Your task to perform on an android device: Is it going to rain today? Image 0: 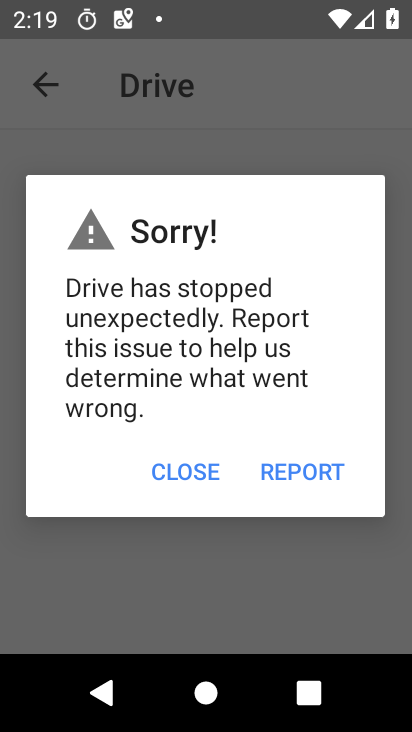
Step 0: press home button
Your task to perform on an android device: Is it going to rain today? Image 1: 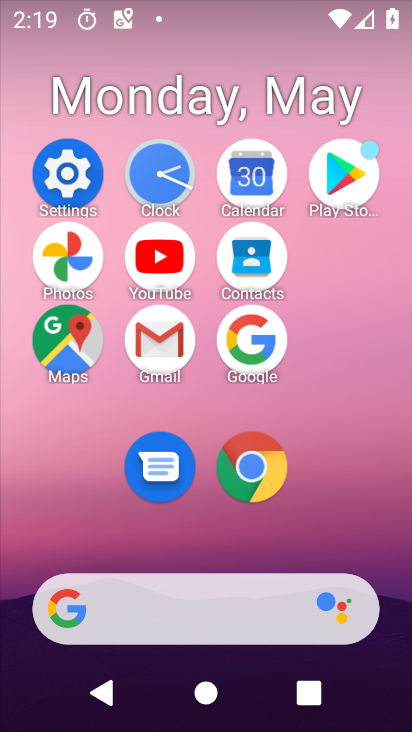
Step 1: click (254, 337)
Your task to perform on an android device: Is it going to rain today? Image 2: 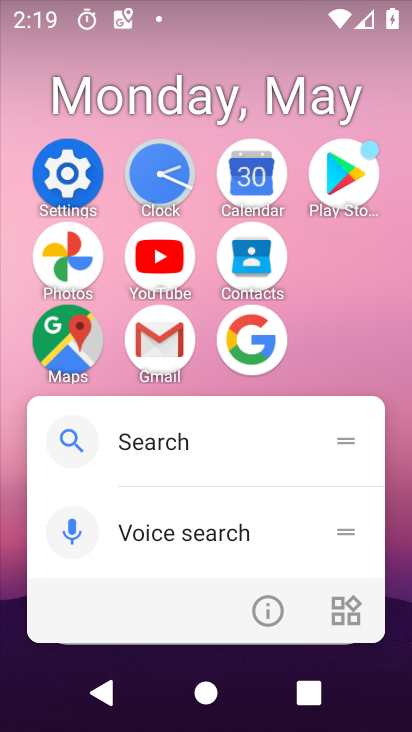
Step 2: click (253, 336)
Your task to perform on an android device: Is it going to rain today? Image 3: 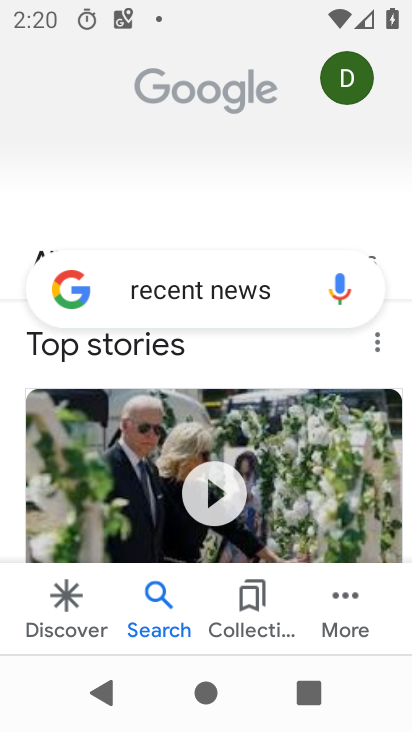
Step 3: click (291, 285)
Your task to perform on an android device: Is it going to rain today? Image 4: 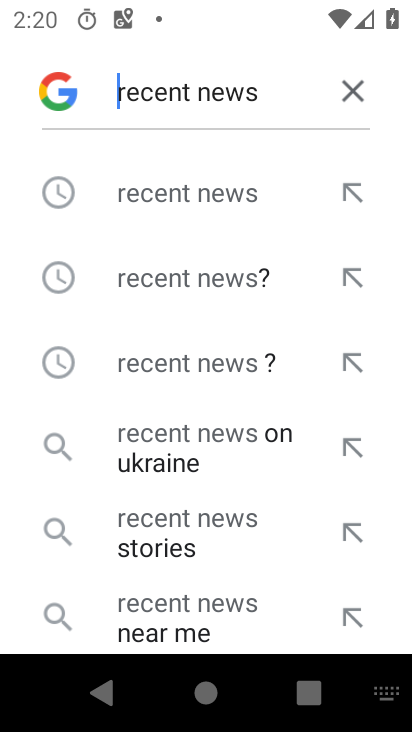
Step 4: click (372, 101)
Your task to perform on an android device: Is it going to rain today? Image 5: 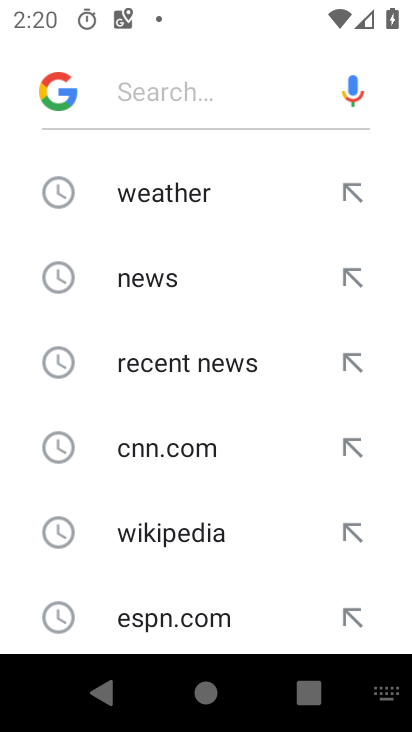
Step 5: drag from (212, 513) to (243, 234)
Your task to perform on an android device: Is it going to rain today? Image 6: 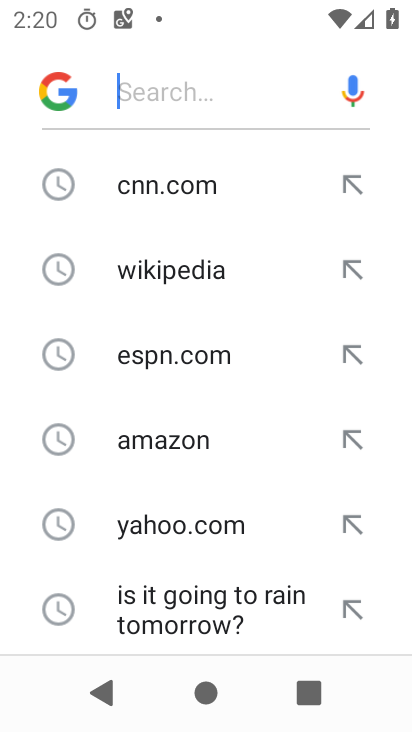
Step 6: drag from (232, 518) to (269, 197)
Your task to perform on an android device: Is it going to rain today? Image 7: 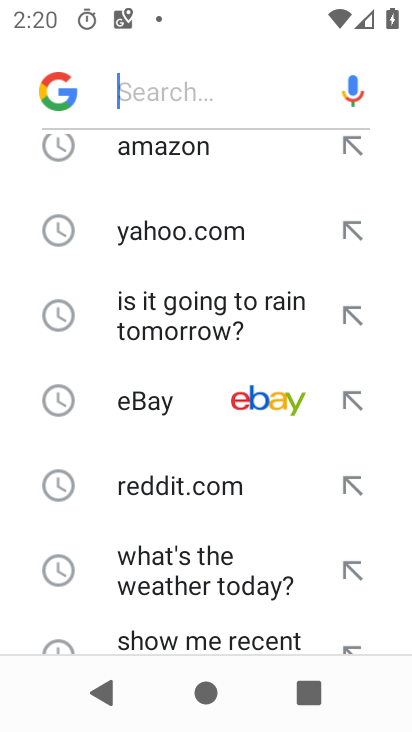
Step 7: drag from (210, 521) to (231, 252)
Your task to perform on an android device: Is it going to rain today? Image 8: 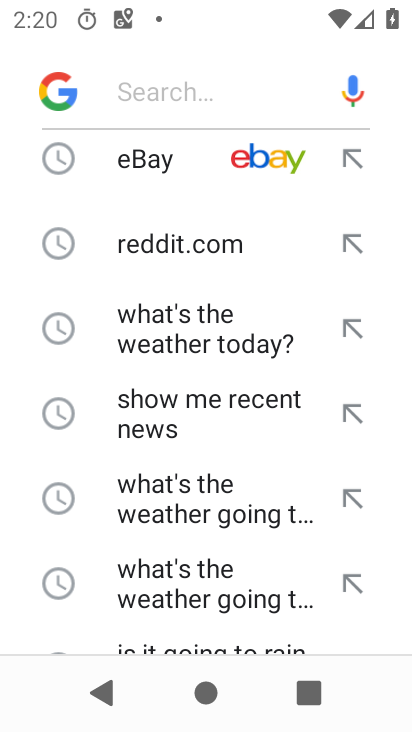
Step 8: drag from (243, 234) to (229, 664)
Your task to perform on an android device: Is it going to rain today? Image 9: 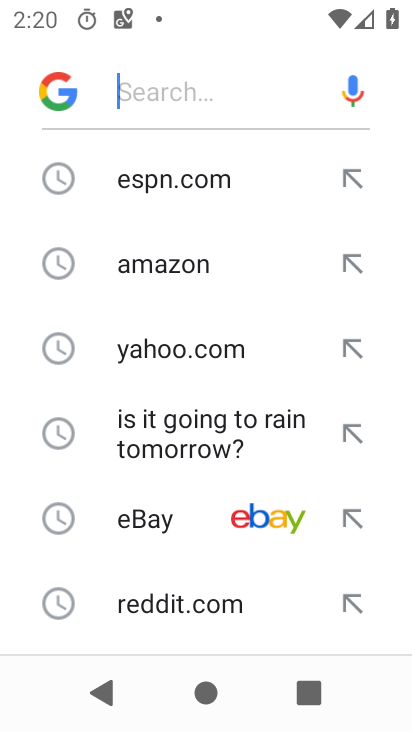
Step 9: drag from (212, 185) to (219, 618)
Your task to perform on an android device: Is it going to rain today? Image 10: 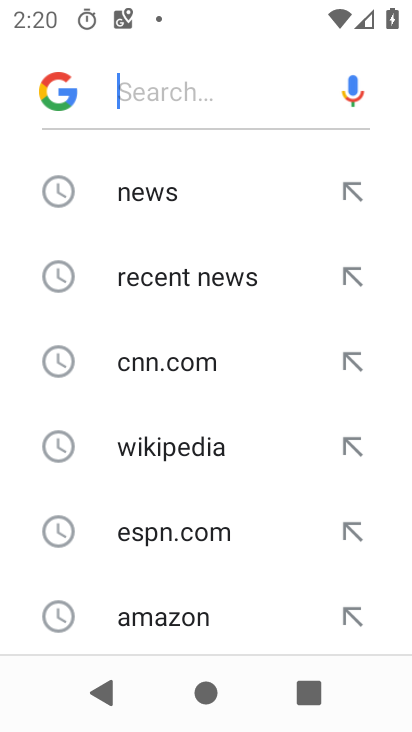
Step 10: drag from (230, 190) to (177, 540)
Your task to perform on an android device: Is it going to rain today? Image 11: 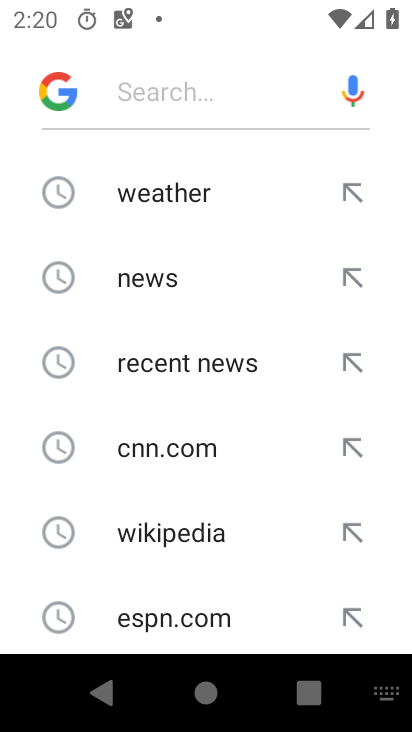
Step 11: click (207, 183)
Your task to perform on an android device: Is it going to rain today? Image 12: 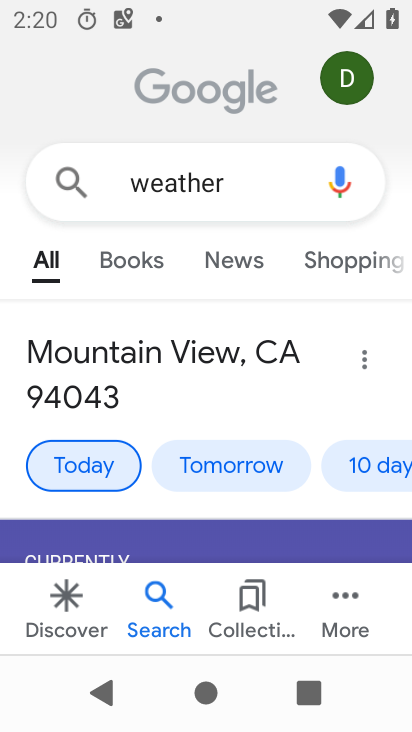
Step 12: task complete